Your task to perform on an android device: Go to privacy settings Image 0: 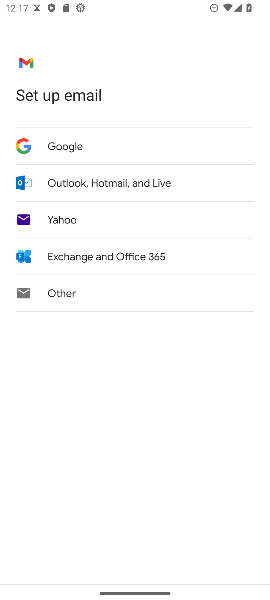
Step 0: press home button
Your task to perform on an android device: Go to privacy settings Image 1: 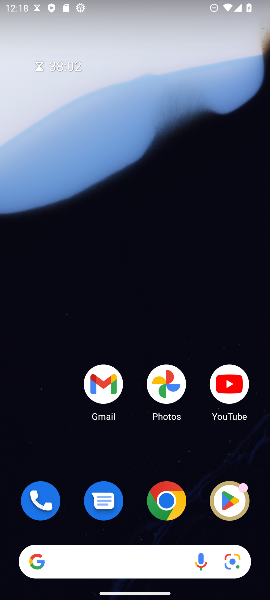
Step 1: drag from (121, 528) to (118, 150)
Your task to perform on an android device: Go to privacy settings Image 2: 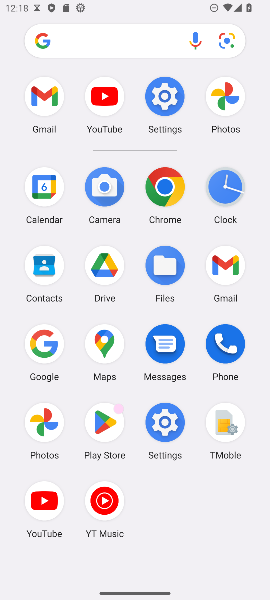
Step 2: click (165, 424)
Your task to perform on an android device: Go to privacy settings Image 3: 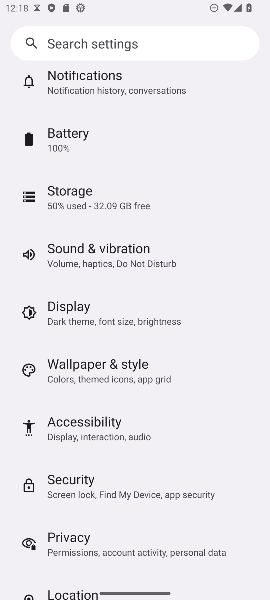
Step 3: click (83, 545)
Your task to perform on an android device: Go to privacy settings Image 4: 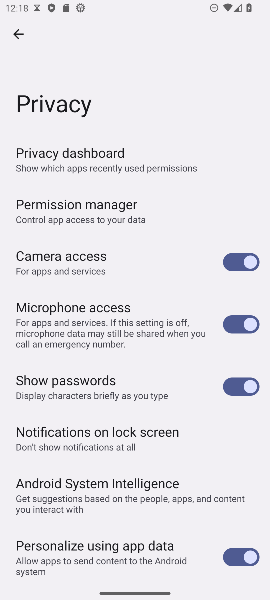
Step 4: task complete